Your task to perform on an android device: turn off notifications in google photos Image 0: 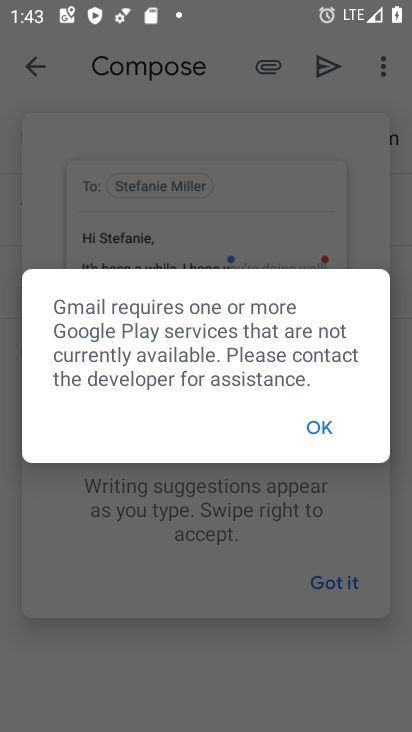
Step 0: press home button
Your task to perform on an android device: turn off notifications in google photos Image 1: 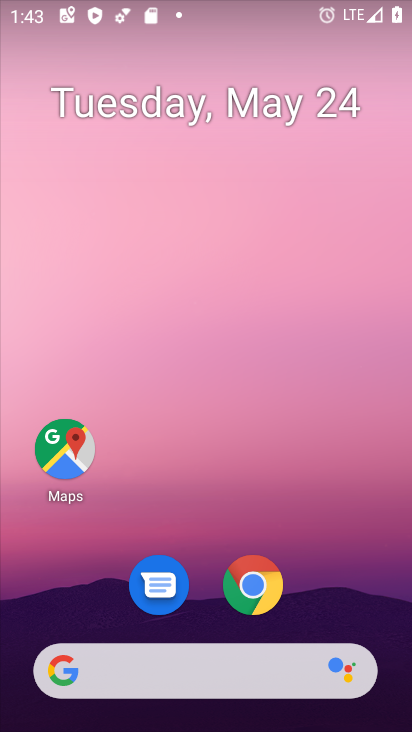
Step 1: drag from (217, 510) to (274, 79)
Your task to perform on an android device: turn off notifications in google photos Image 2: 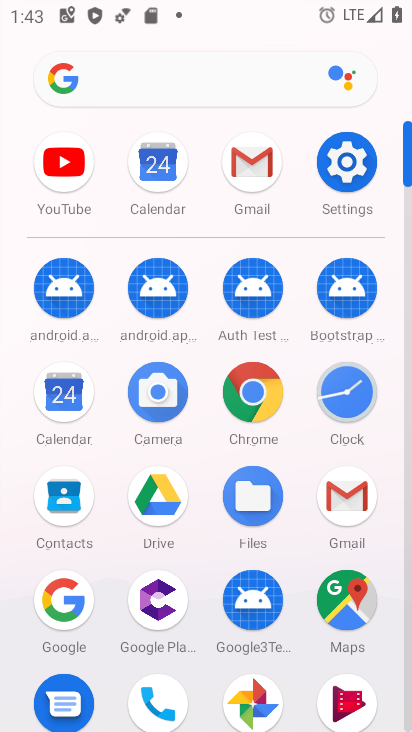
Step 2: click (240, 695)
Your task to perform on an android device: turn off notifications in google photos Image 3: 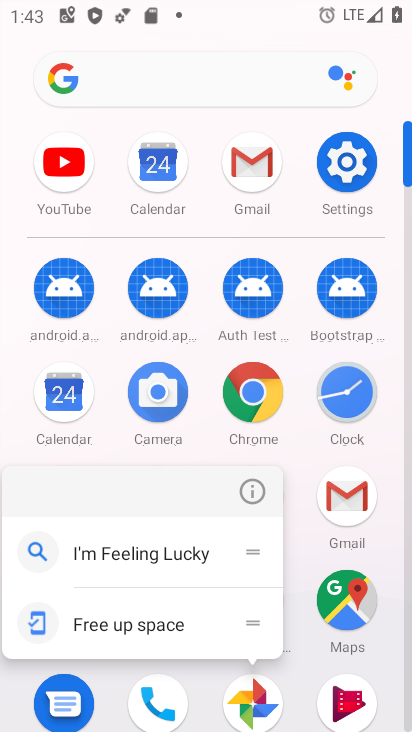
Step 3: click (264, 693)
Your task to perform on an android device: turn off notifications in google photos Image 4: 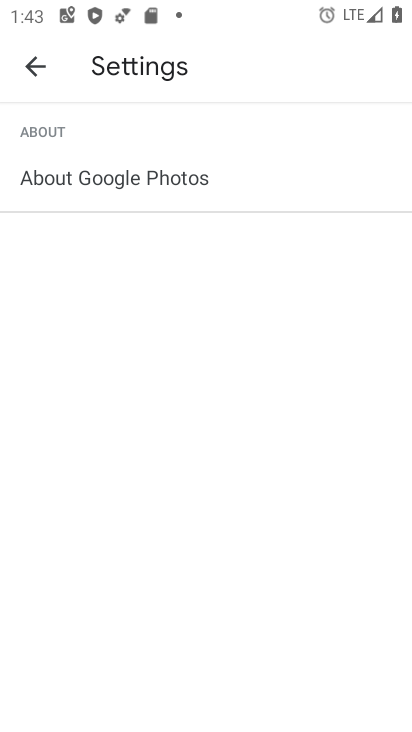
Step 4: click (33, 62)
Your task to perform on an android device: turn off notifications in google photos Image 5: 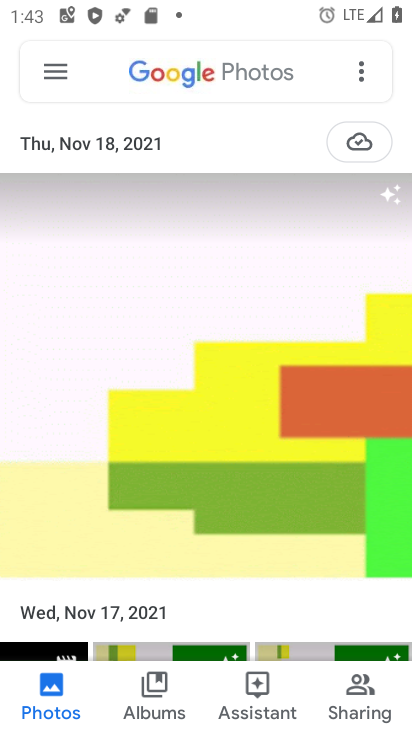
Step 5: click (49, 66)
Your task to perform on an android device: turn off notifications in google photos Image 6: 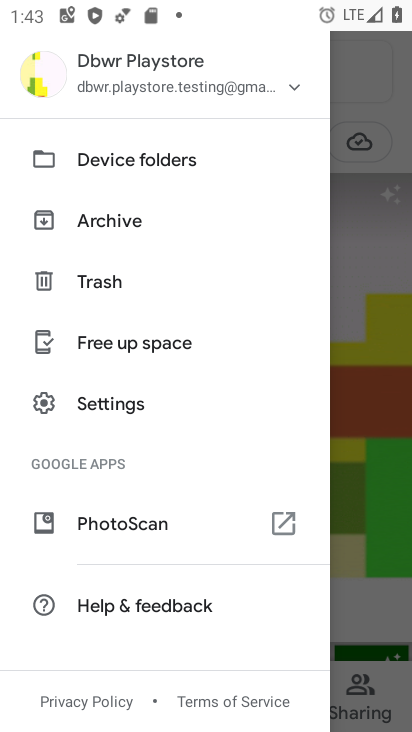
Step 6: click (126, 397)
Your task to perform on an android device: turn off notifications in google photos Image 7: 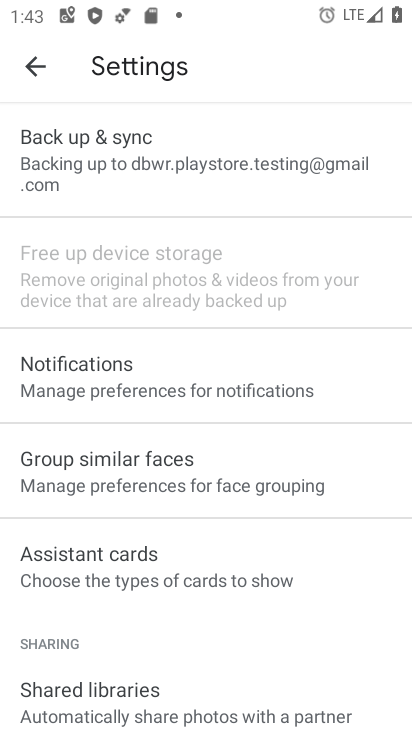
Step 7: click (143, 382)
Your task to perform on an android device: turn off notifications in google photos Image 8: 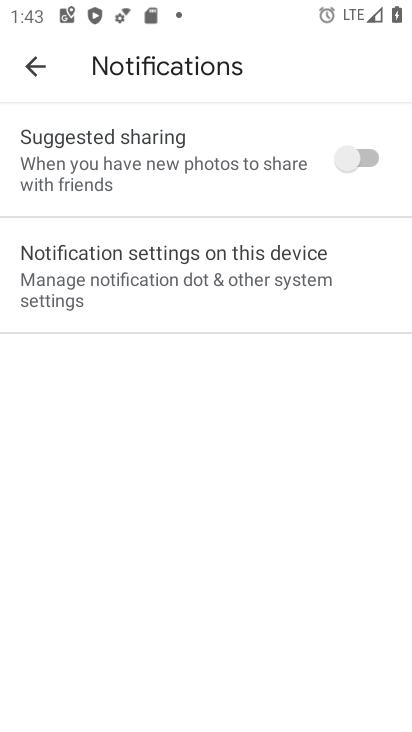
Step 8: click (234, 269)
Your task to perform on an android device: turn off notifications in google photos Image 9: 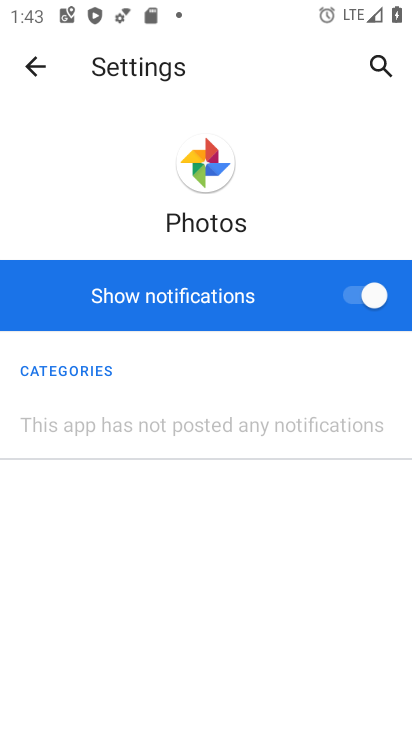
Step 9: click (364, 295)
Your task to perform on an android device: turn off notifications in google photos Image 10: 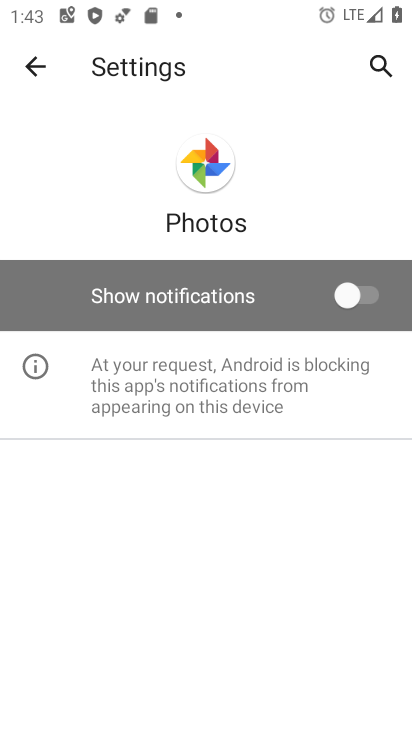
Step 10: task complete